Your task to perform on an android device: turn on airplane mode Image 0: 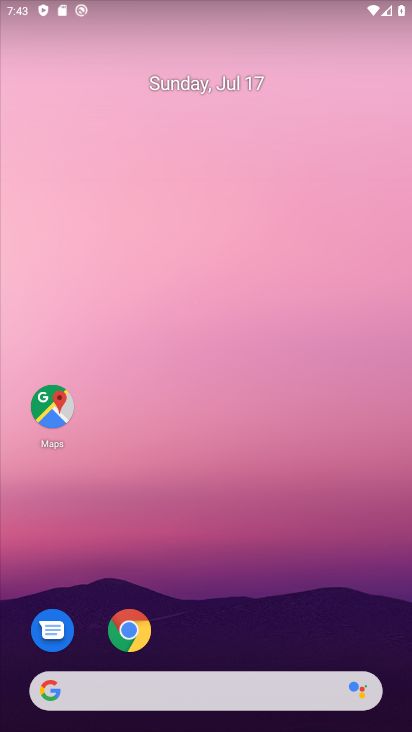
Step 0: drag from (297, 648) to (283, 41)
Your task to perform on an android device: turn on airplane mode Image 1: 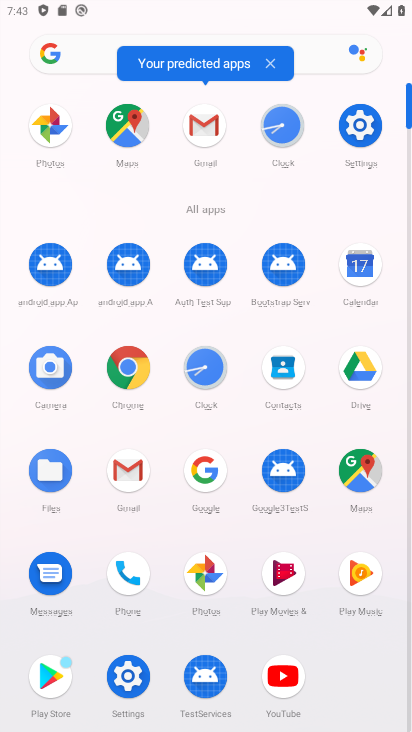
Step 1: click (370, 126)
Your task to perform on an android device: turn on airplane mode Image 2: 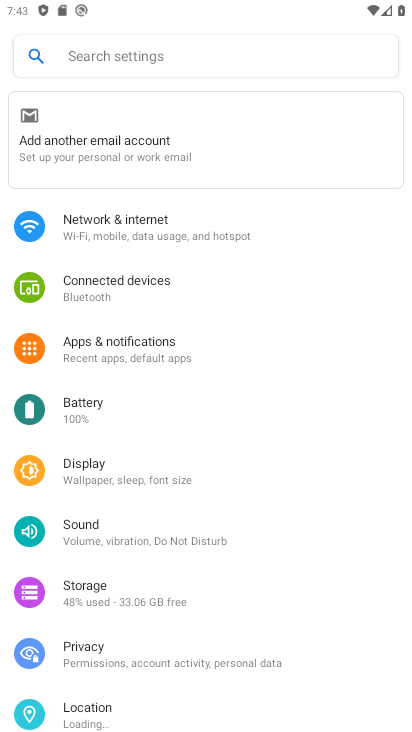
Step 2: click (188, 226)
Your task to perform on an android device: turn on airplane mode Image 3: 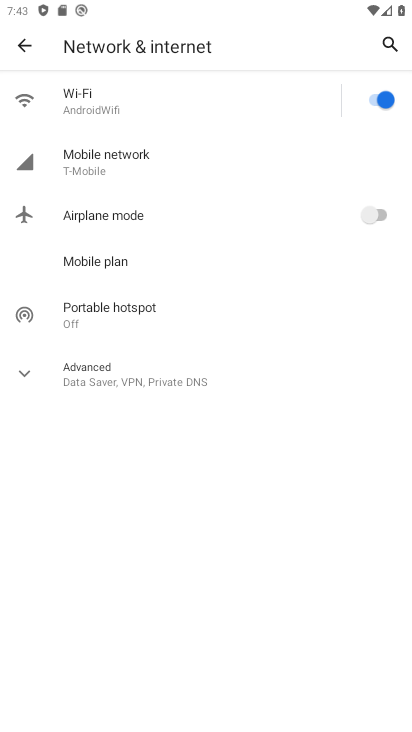
Step 3: click (372, 221)
Your task to perform on an android device: turn on airplane mode Image 4: 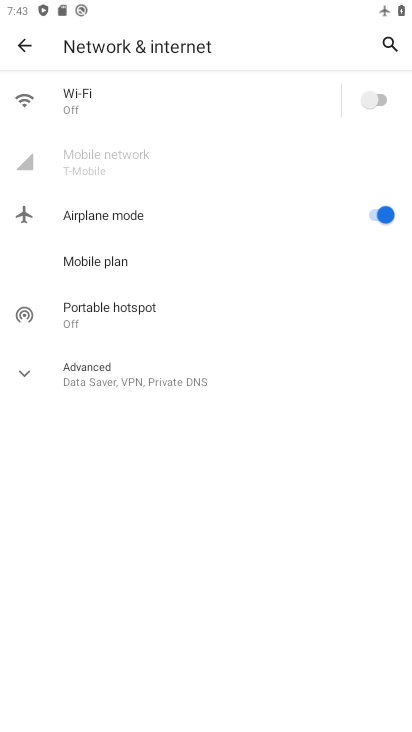
Step 4: task complete